Your task to perform on an android device: Open the phone app and click the voicemail tab. Image 0: 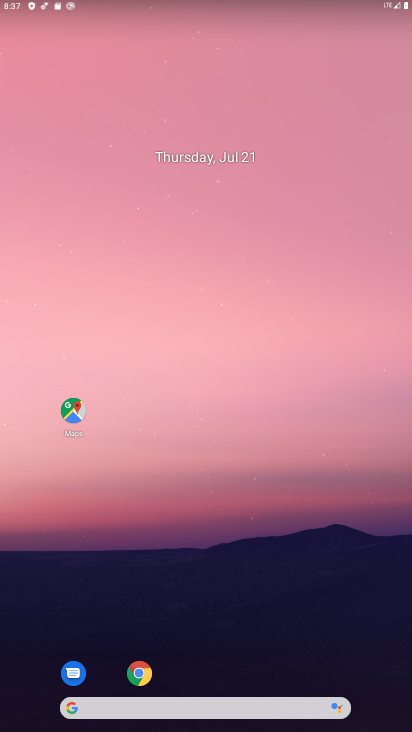
Step 0: drag from (201, 668) to (192, 220)
Your task to perform on an android device: Open the phone app and click the voicemail tab. Image 1: 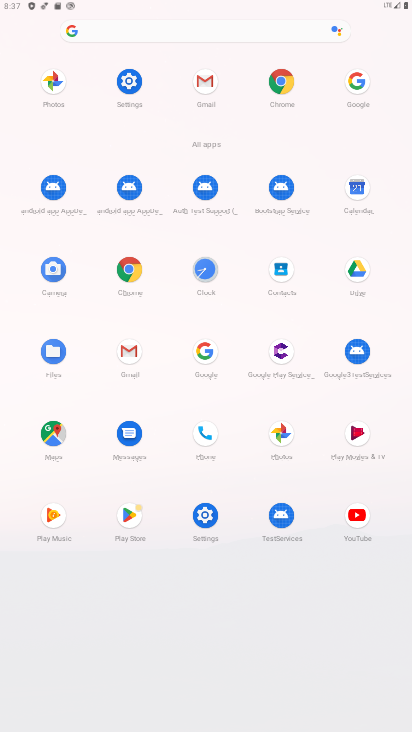
Step 1: click (210, 433)
Your task to perform on an android device: Open the phone app and click the voicemail tab. Image 2: 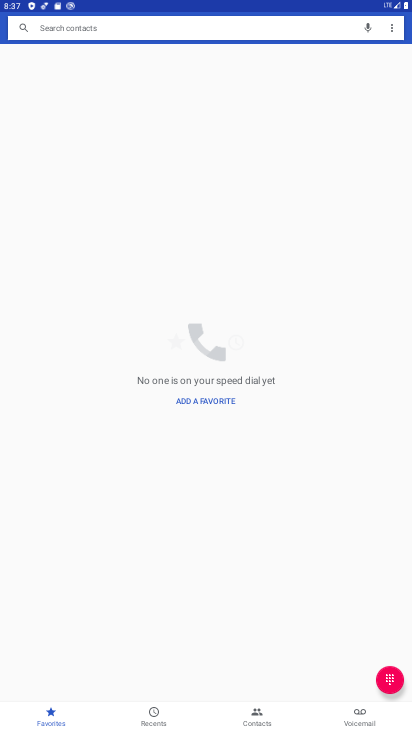
Step 2: click (361, 712)
Your task to perform on an android device: Open the phone app and click the voicemail tab. Image 3: 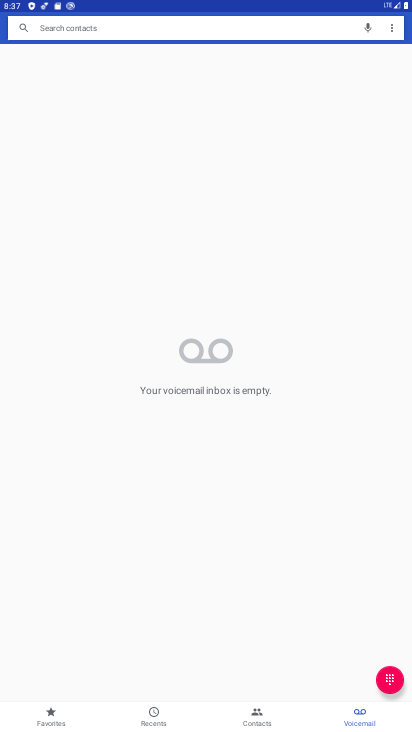
Step 3: task complete